Your task to perform on an android device: allow notifications from all sites in the chrome app Image 0: 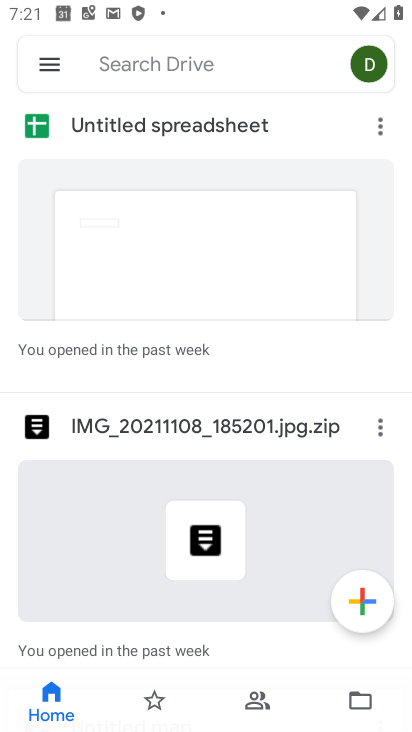
Step 0: press home button
Your task to perform on an android device: allow notifications from all sites in the chrome app Image 1: 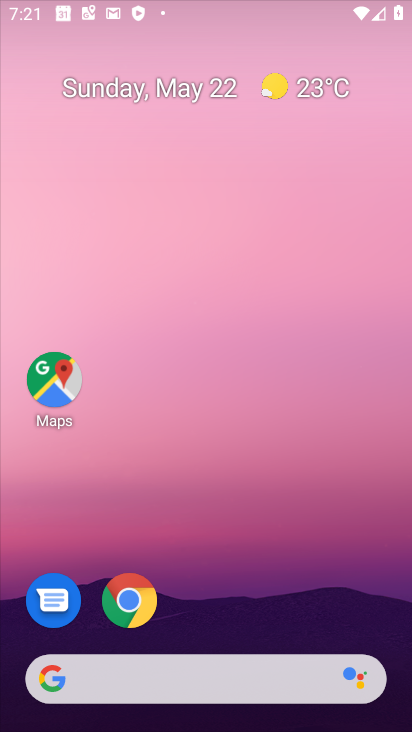
Step 1: drag from (370, 613) to (265, 94)
Your task to perform on an android device: allow notifications from all sites in the chrome app Image 2: 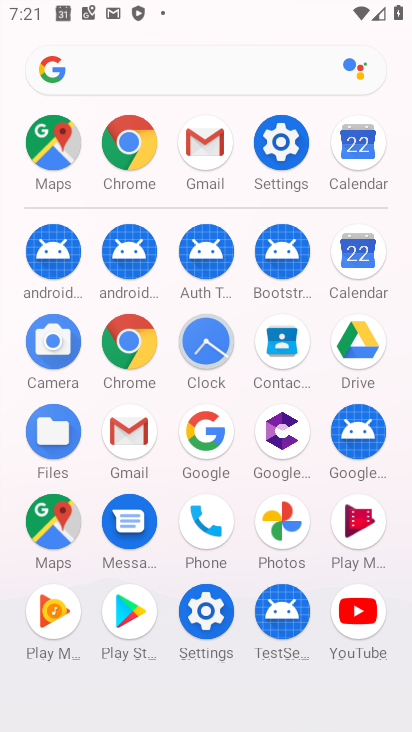
Step 2: click (133, 359)
Your task to perform on an android device: allow notifications from all sites in the chrome app Image 3: 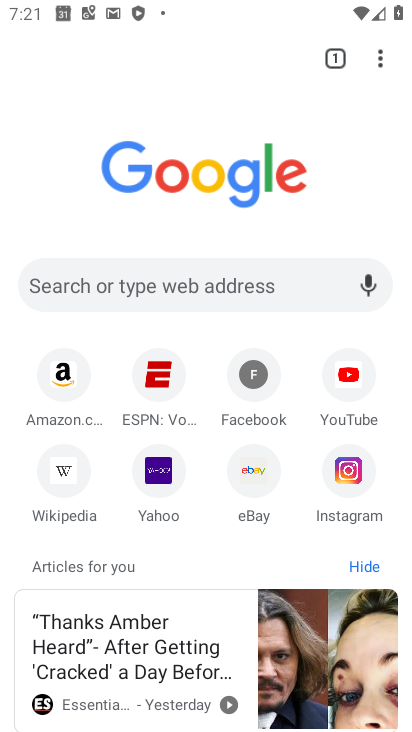
Step 3: click (377, 57)
Your task to perform on an android device: allow notifications from all sites in the chrome app Image 4: 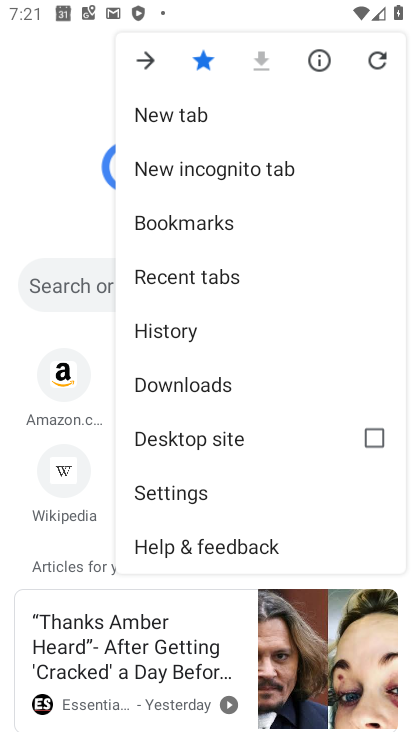
Step 4: click (180, 483)
Your task to perform on an android device: allow notifications from all sites in the chrome app Image 5: 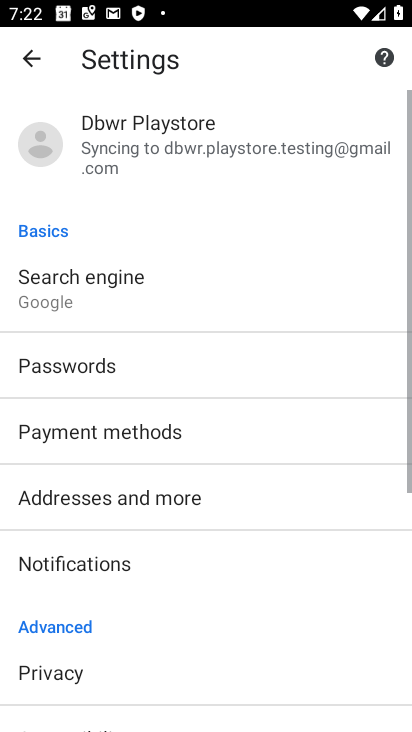
Step 5: click (120, 551)
Your task to perform on an android device: allow notifications from all sites in the chrome app Image 6: 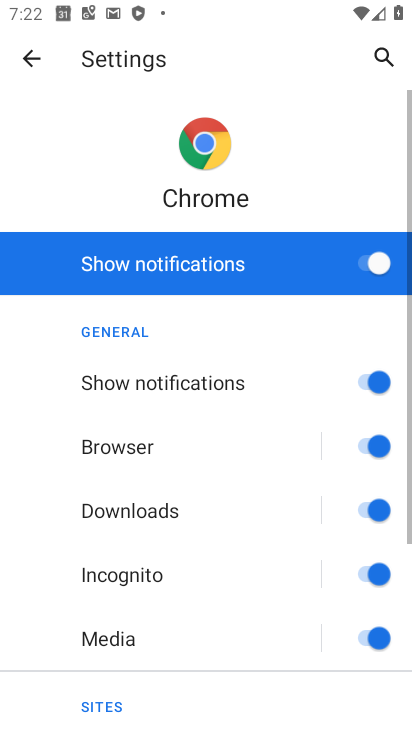
Step 6: task complete